Your task to perform on an android device: What's on my calendar tomorrow? Image 0: 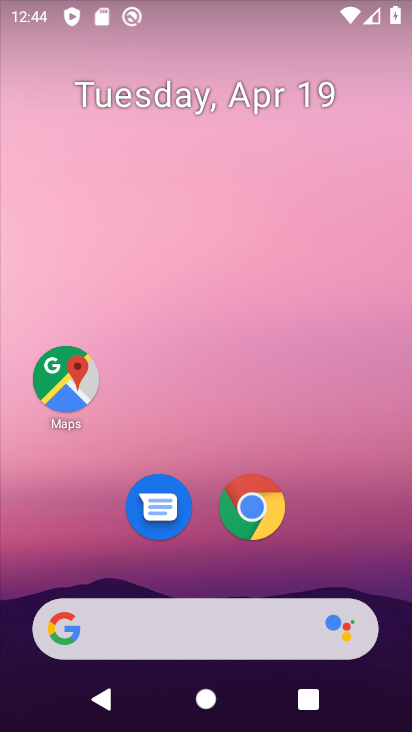
Step 0: drag from (208, 167) to (208, 80)
Your task to perform on an android device: What's on my calendar tomorrow? Image 1: 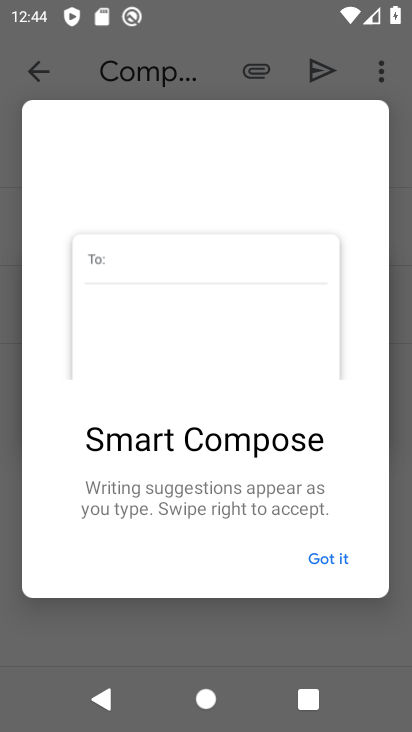
Step 1: press home button
Your task to perform on an android device: What's on my calendar tomorrow? Image 2: 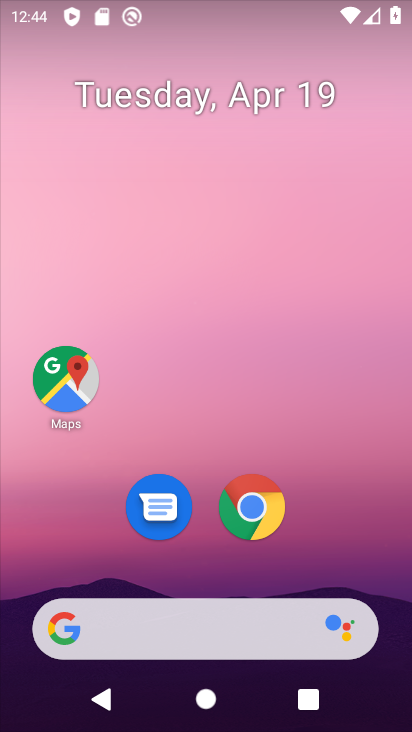
Step 2: drag from (206, 523) to (220, 64)
Your task to perform on an android device: What's on my calendar tomorrow? Image 3: 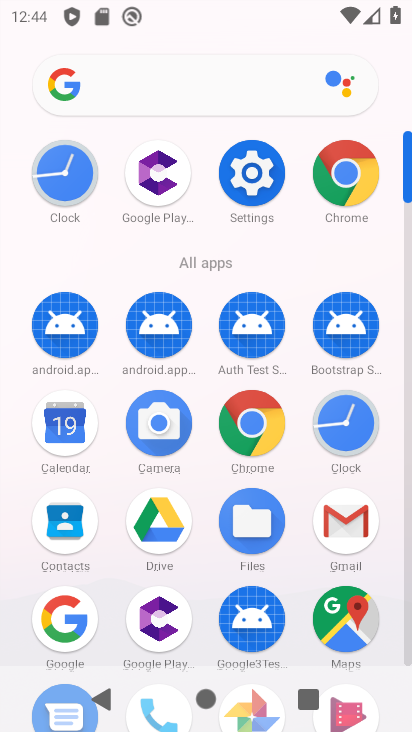
Step 3: click (61, 421)
Your task to perform on an android device: What's on my calendar tomorrow? Image 4: 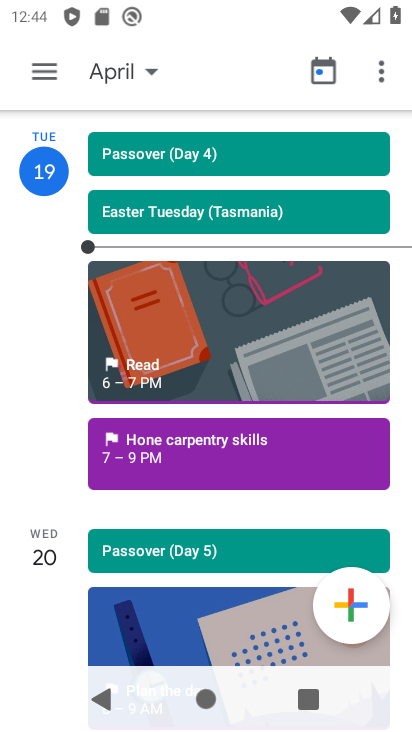
Step 4: click (56, 604)
Your task to perform on an android device: What's on my calendar tomorrow? Image 5: 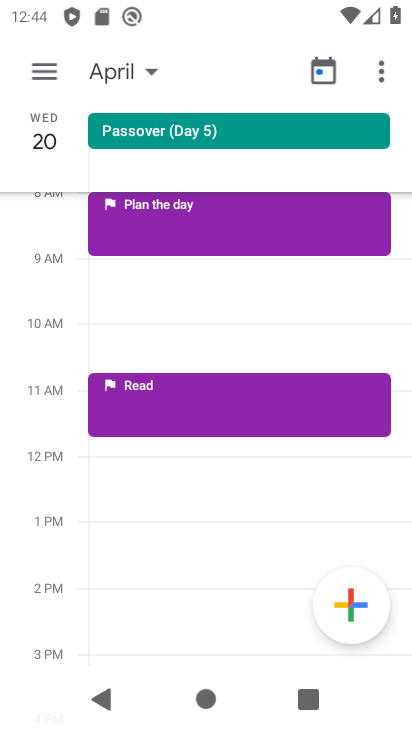
Step 5: task complete